Your task to perform on an android device: turn on improve location accuracy Image 0: 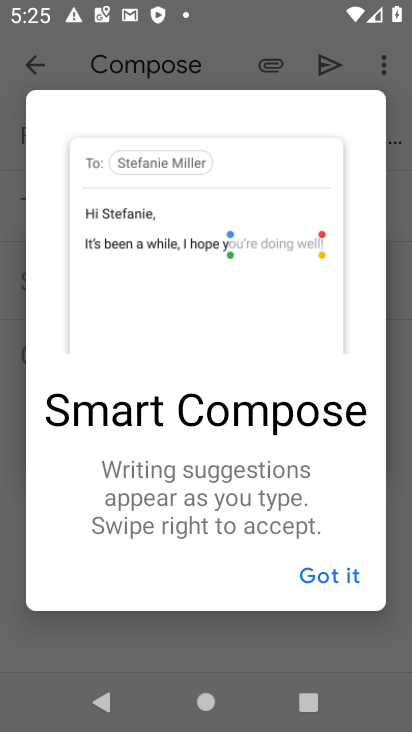
Step 0: click (351, 574)
Your task to perform on an android device: turn on improve location accuracy Image 1: 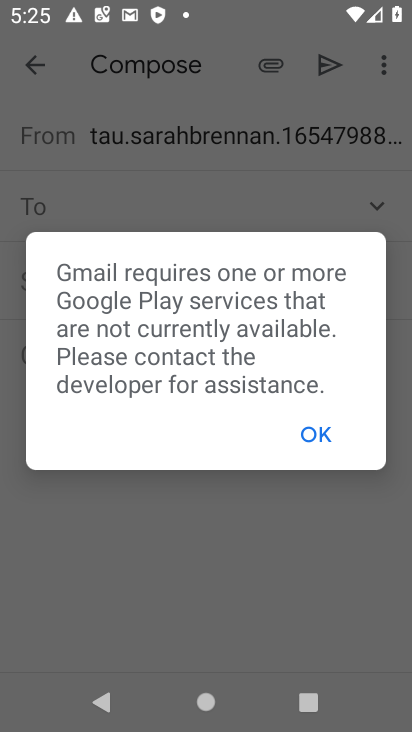
Step 1: press home button
Your task to perform on an android device: turn on improve location accuracy Image 2: 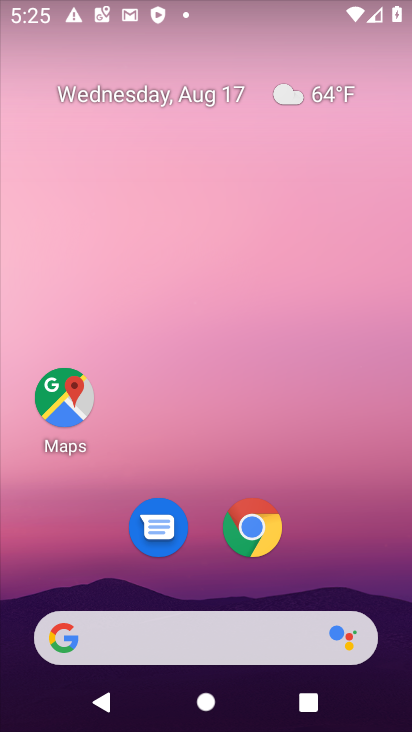
Step 2: drag from (192, 610) to (177, 191)
Your task to perform on an android device: turn on improve location accuracy Image 3: 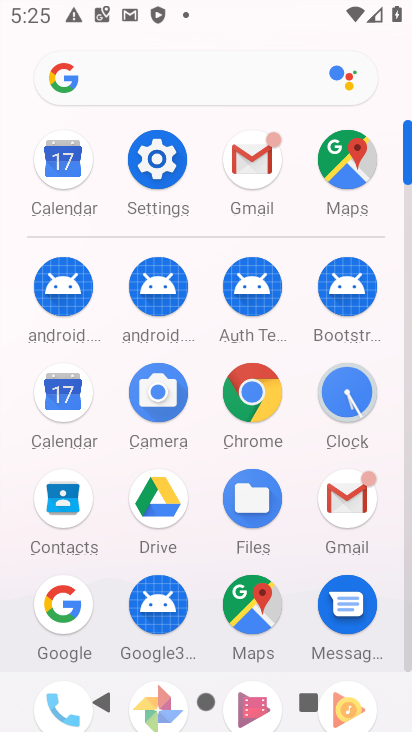
Step 3: click (167, 161)
Your task to perform on an android device: turn on improve location accuracy Image 4: 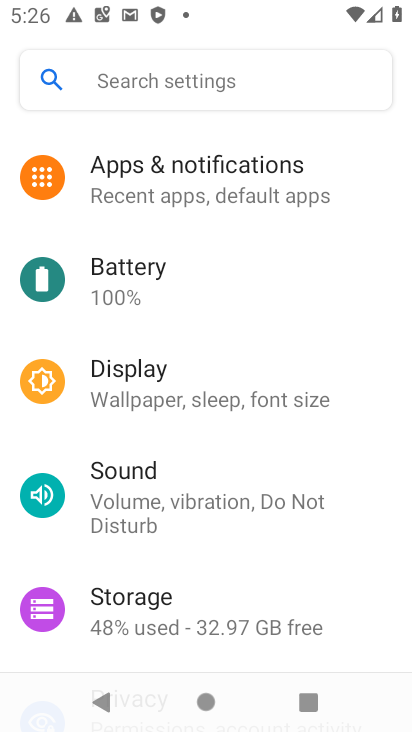
Step 4: drag from (157, 609) to (146, 262)
Your task to perform on an android device: turn on improve location accuracy Image 5: 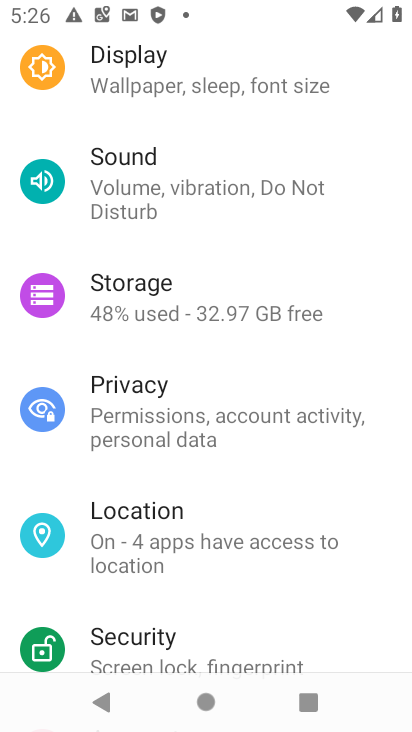
Step 5: click (135, 538)
Your task to perform on an android device: turn on improve location accuracy Image 6: 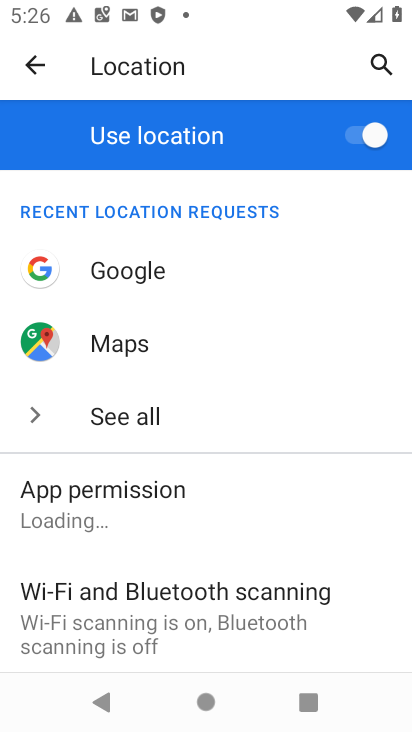
Step 6: drag from (78, 574) to (103, 220)
Your task to perform on an android device: turn on improve location accuracy Image 7: 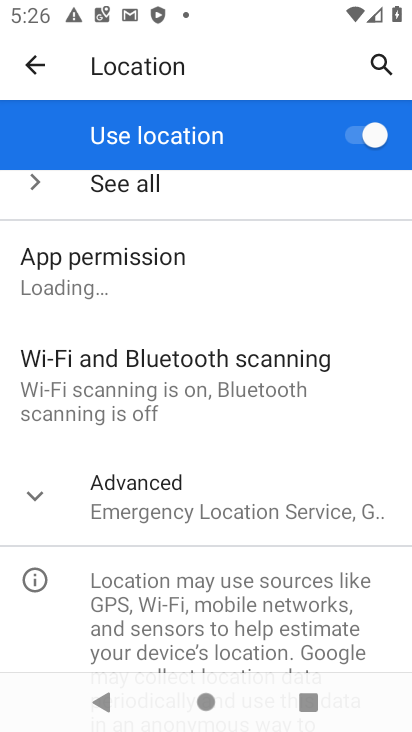
Step 7: click (106, 488)
Your task to perform on an android device: turn on improve location accuracy Image 8: 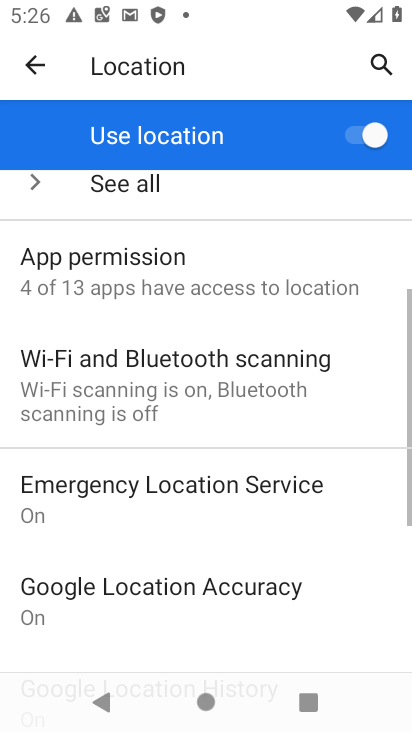
Step 8: drag from (122, 600) to (126, 260)
Your task to perform on an android device: turn on improve location accuracy Image 9: 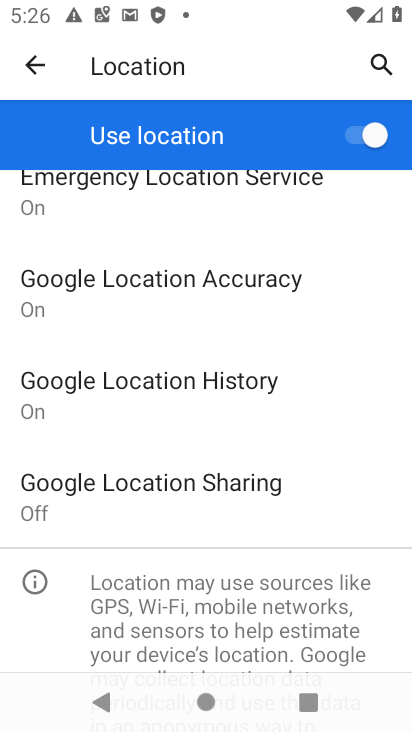
Step 9: click (93, 281)
Your task to perform on an android device: turn on improve location accuracy Image 10: 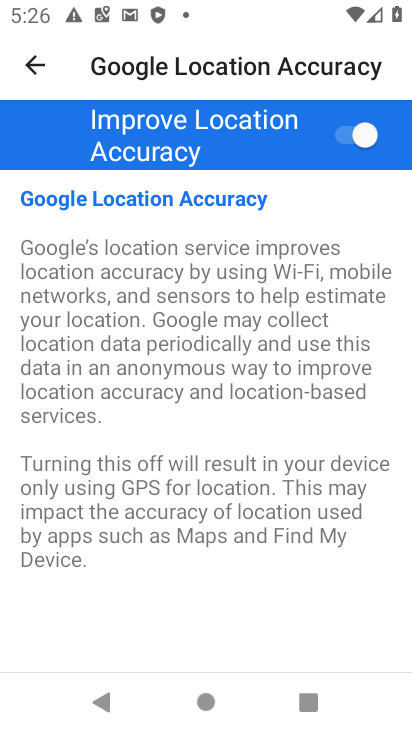
Step 10: task complete